Your task to perform on an android device: turn on priority inbox in the gmail app Image 0: 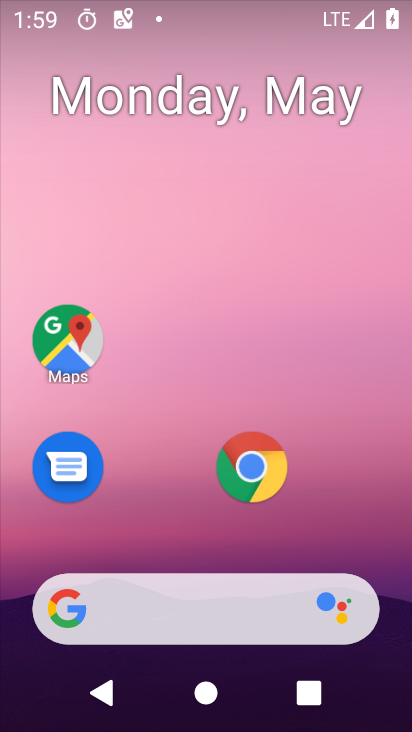
Step 0: drag from (189, 501) to (193, 131)
Your task to perform on an android device: turn on priority inbox in the gmail app Image 1: 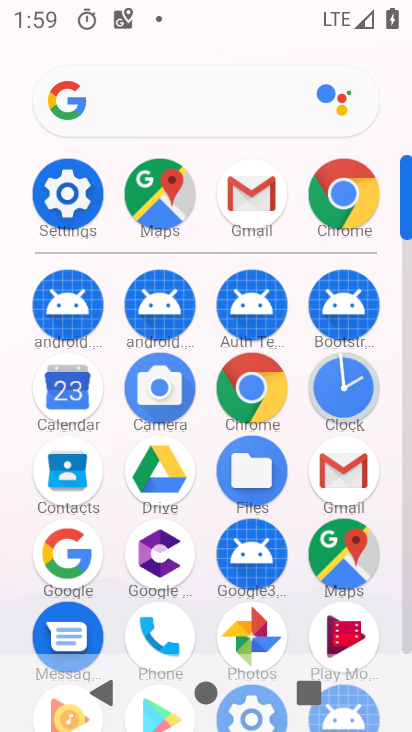
Step 1: click (345, 458)
Your task to perform on an android device: turn on priority inbox in the gmail app Image 2: 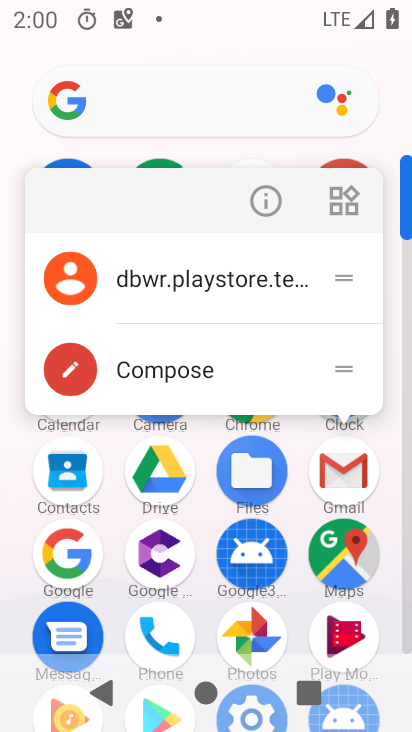
Step 2: click (246, 282)
Your task to perform on an android device: turn on priority inbox in the gmail app Image 3: 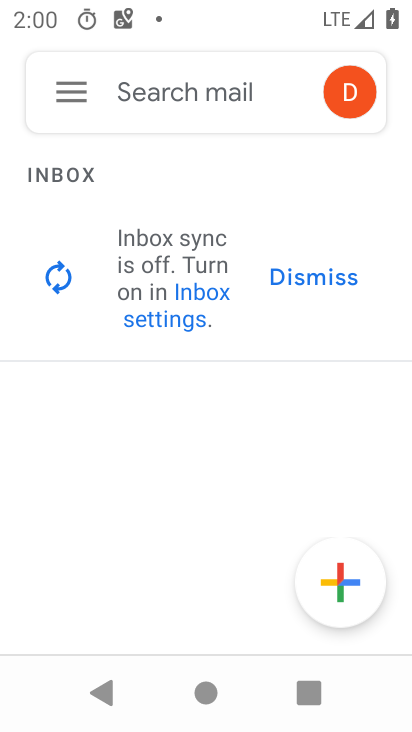
Step 3: click (77, 100)
Your task to perform on an android device: turn on priority inbox in the gmail app Image 4: 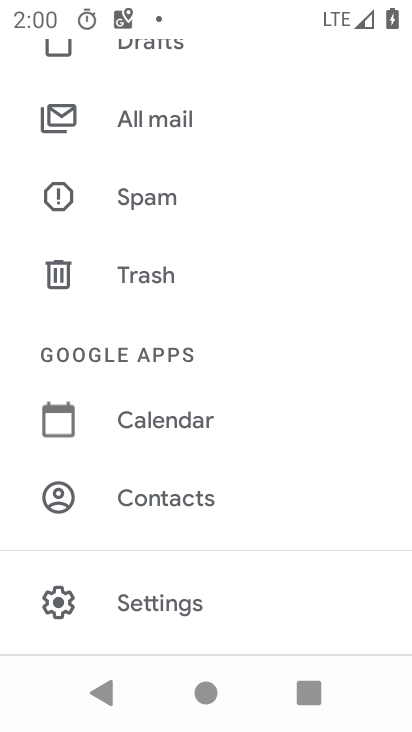
Step 4: drag from (221, 594) to (253, 219)
Your task to perform on an android device: turn on priority inbox in the gmail app Image 5: 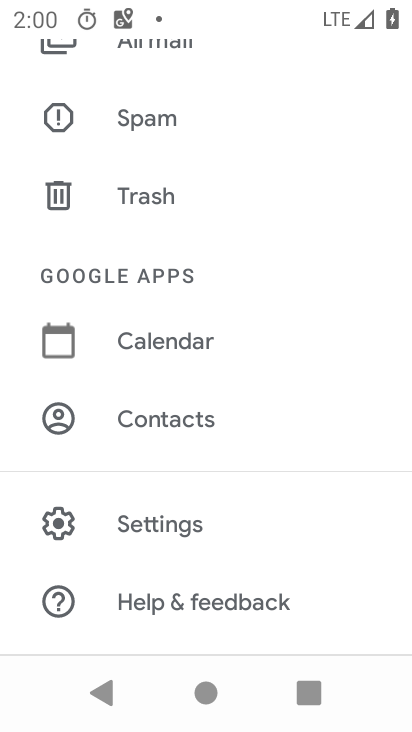
Step 5: click (179, 534)
Your task to perform on an android device: turn on priority inbox in the gmail app Image 6: 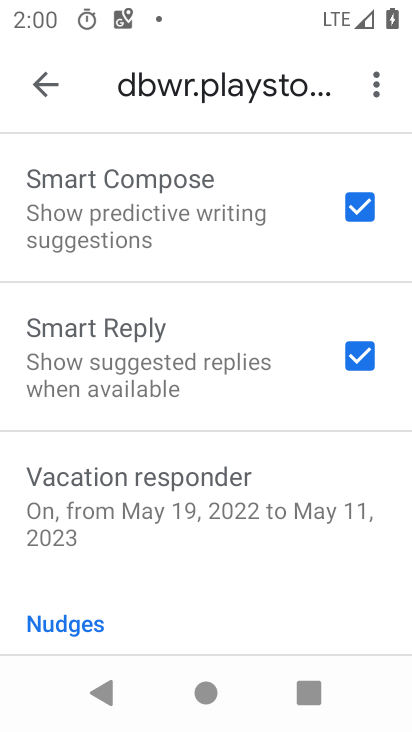
Step 6: drag from (198, 224) to (242, 728)
Your task to perform on an android device: turn on priority inbox in the gmail app Image 7: 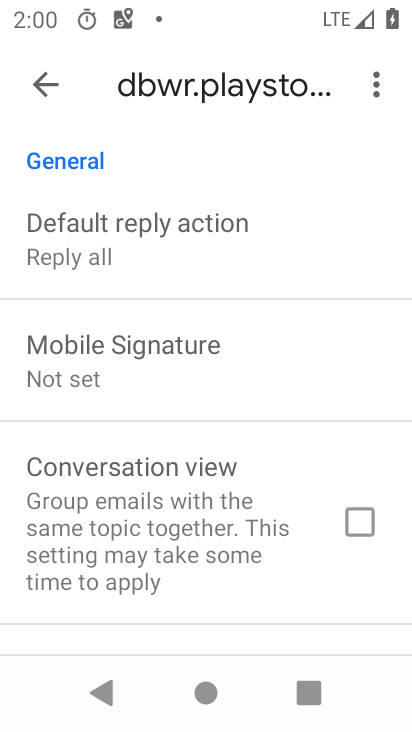
Step 7: drag from (193, 229) to (273, 693)
Your task to perform on an android device: turn on priority inbox in the gmail app Image 8: 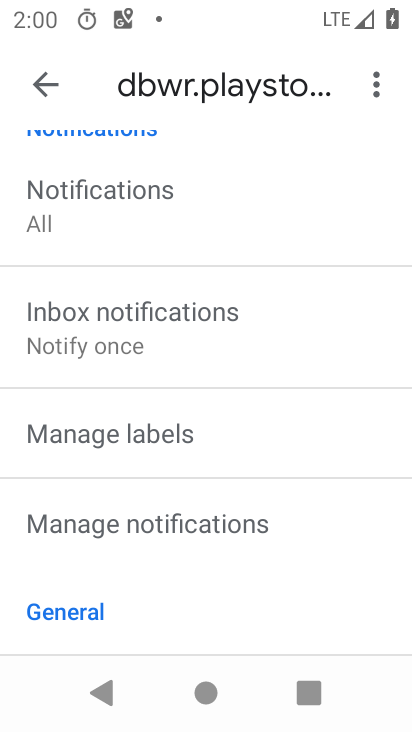
Step 8: drag from (154, 195) to (269, 721)
Your task to perform on an android device: turn on priority inbox in the gmail app Image 9: 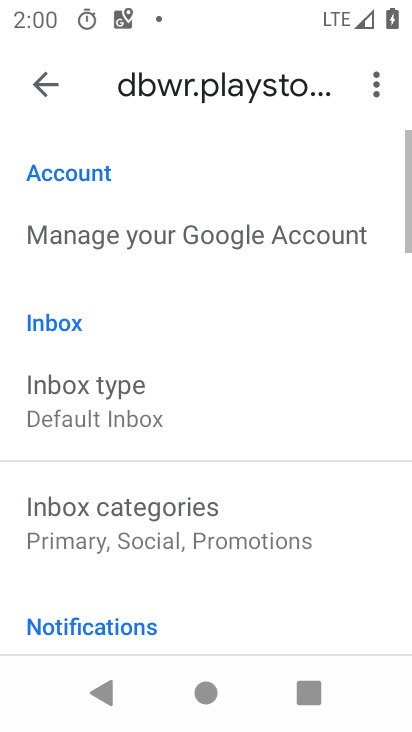
Step 9: click (189, 400)
Your task to perform on an android device: turn on priority inbox in the gmail app Image 10: 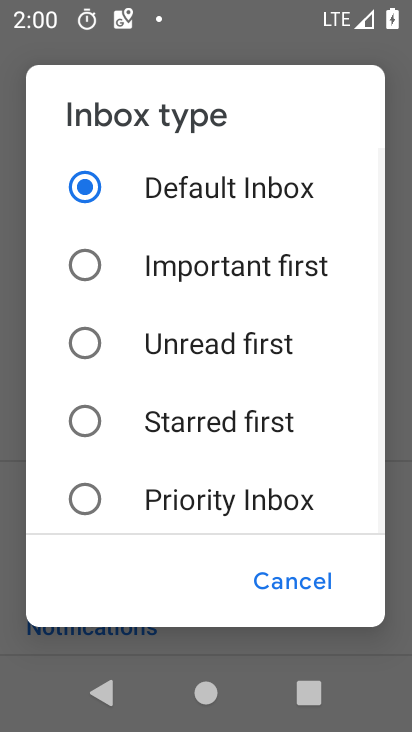
Step 10: drag from (207, 501) to (251, 228)
Your task to perform on an android device: turn on priority inbox in the gmail app Image 11: 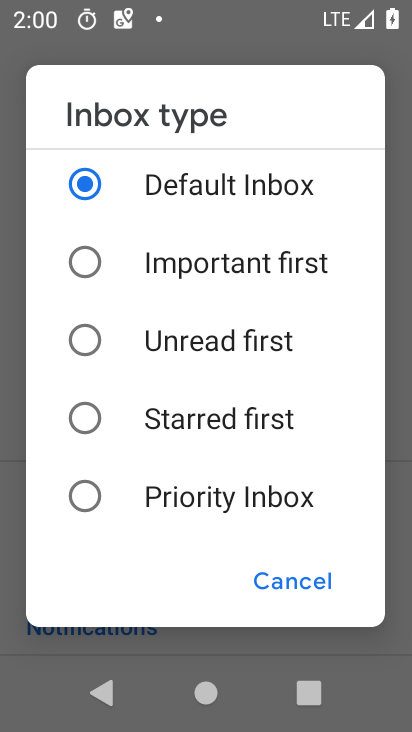
Step 11: click (118, 503)
Your task to perform on an android device: turn on priority inbox in the gmail app Image 12: 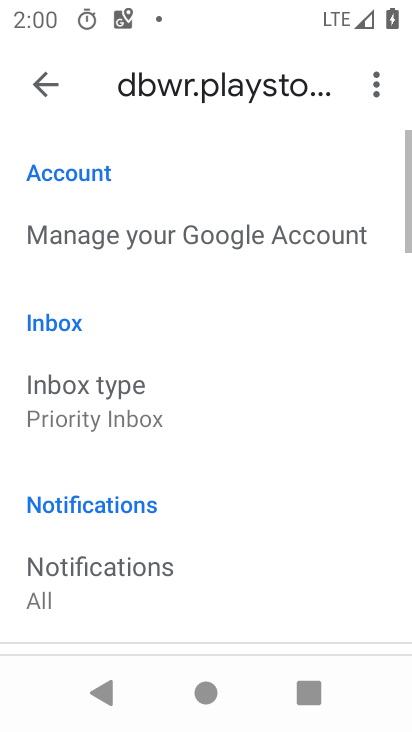
Step 12: task complete